Your task to perform on an android device: Find coffee shops on Maps Image 0: 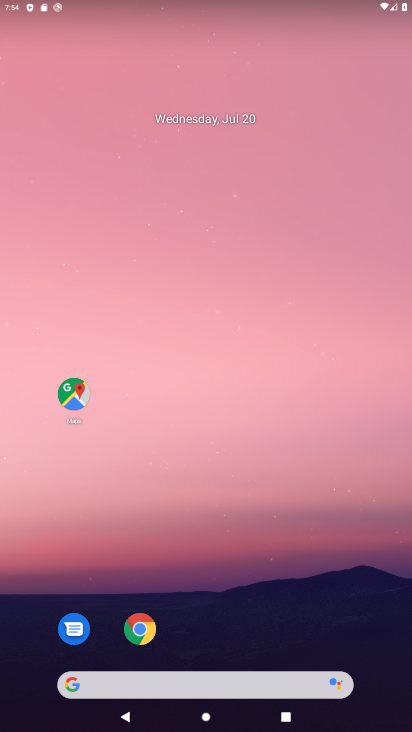
Step 0: click (75, 404)
Your task to perform on an android device: Find coffee shops on Maps Image 1: 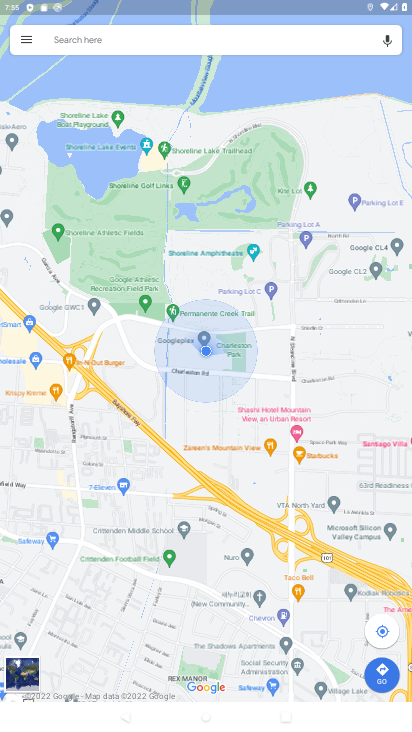
Step 1: click (124, 33)
Your task to perform on an android device: Find coffee shops on Maps Image 2: 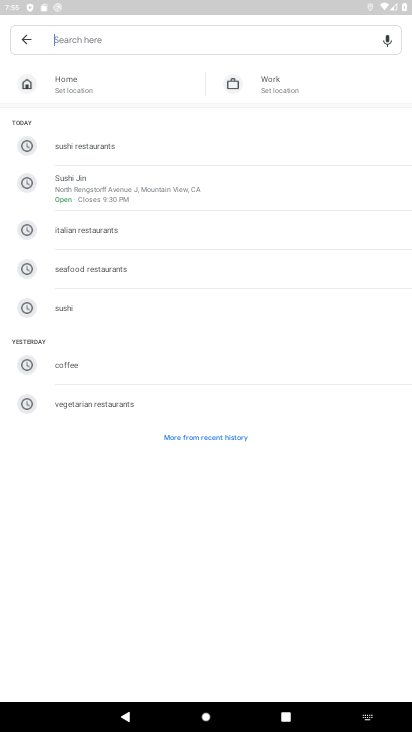
Step 2: click (58, 365)
Your task to perform on an android device: Find coffee shops on Maps Image 3: 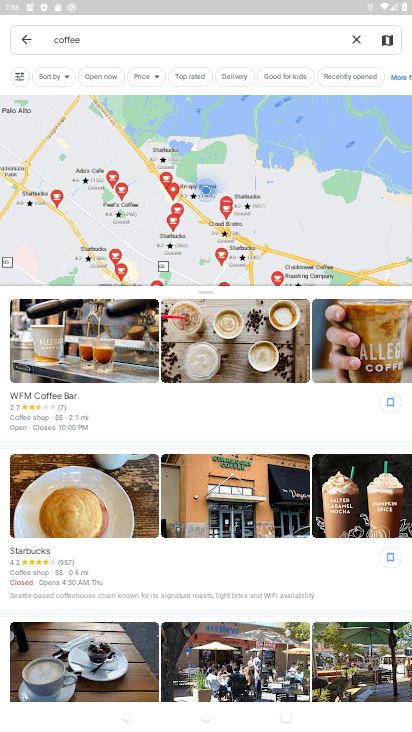
Step 3: task complete